Your task to perform on an android device: Empty the shopping cart on walmart.com. Add "dell xps" to the cart on walmart.com Image 0: 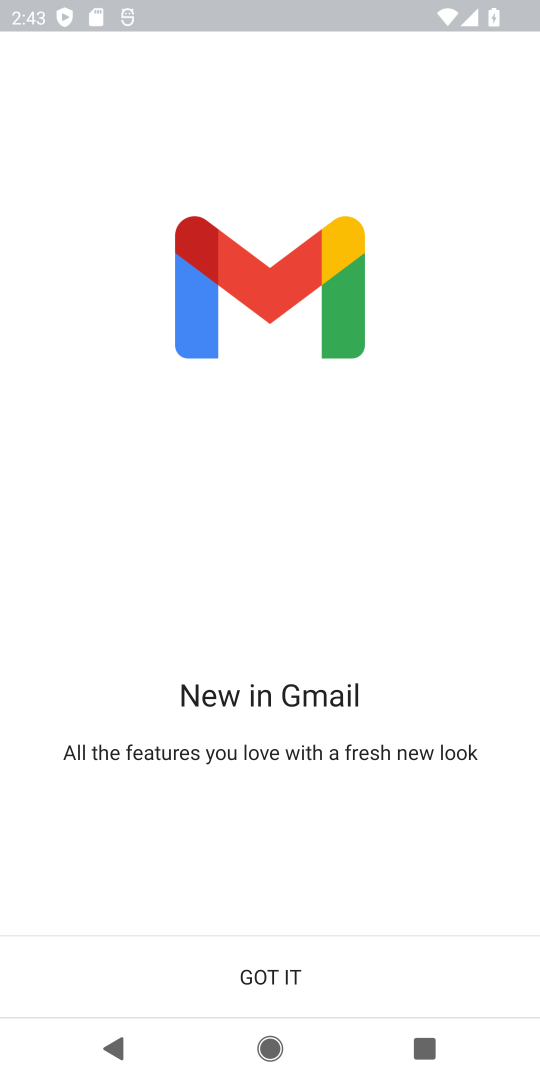
Step 0: press home button
Your task to perform on an android device: Empty the shopping cart on walmart.com. Add "dell xps" to the cart on walmart.com Image 1: 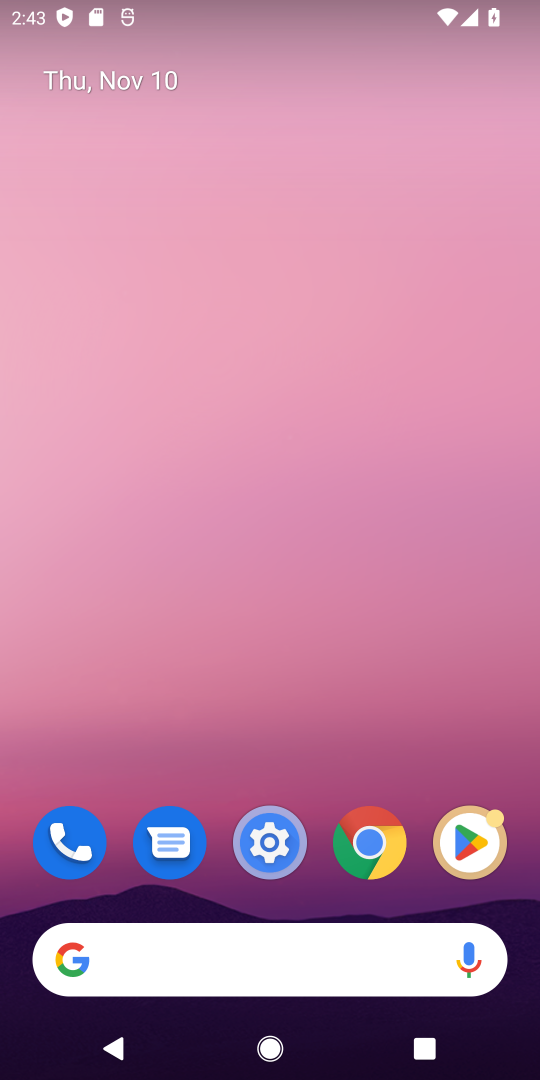
Step 1: click (116, 966)
Your task to perform on an android device: Empty the shopping cart on walmart.com. Add "dell xps" to the cart on walmart.com Image 2: 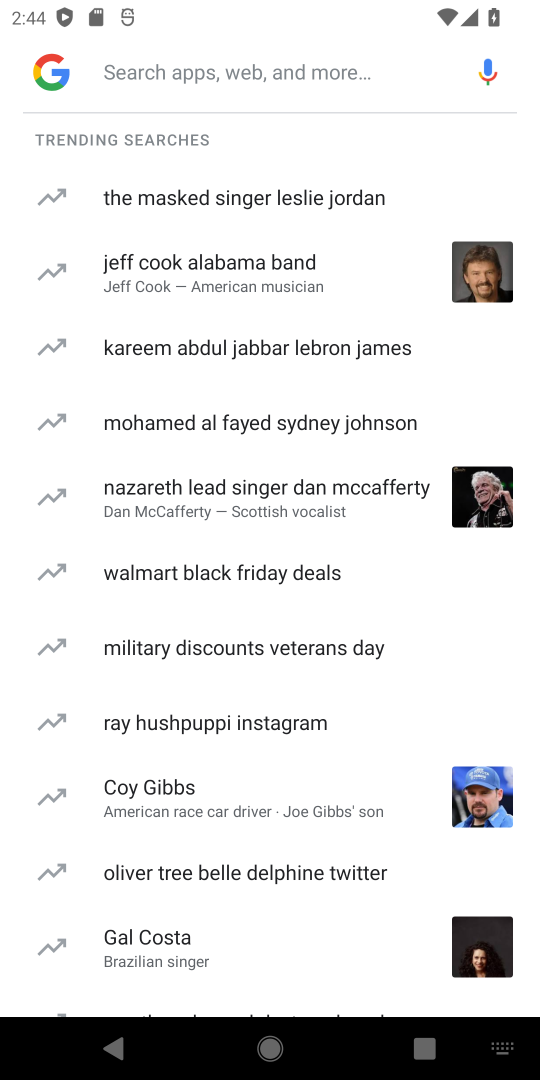
Step 2: type "walmart.com"
Your task to perform on an android device: Empty the shopping cart on walmart.com. Add "dell xps" to the cart on walmart.com Image 3: 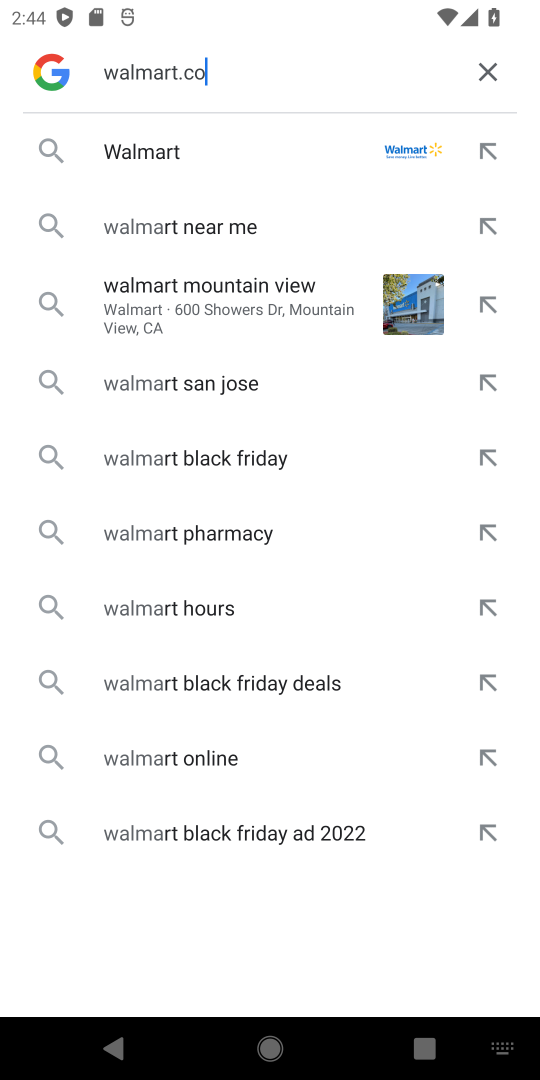
Step 3: press enter
Your task to perform on an android device: Empty the shopping cart on walmart.com. Add "dell xps" to the cart on walmart.com Image 4: 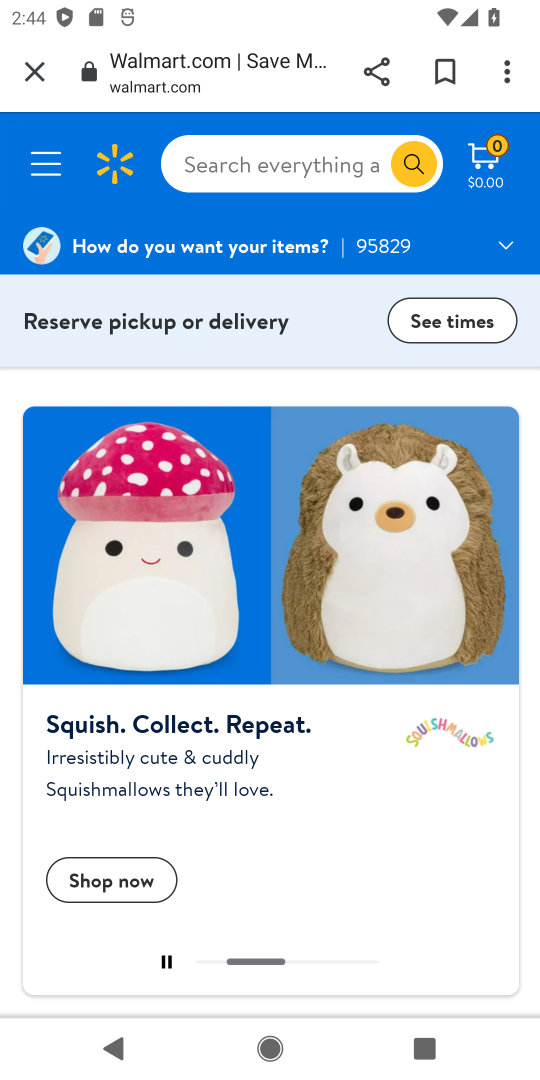
Step 4: click (487, 153)
Your task to perform on an android device: Empty the shopping cart on walmart.com. Add "dell xps" to the cart on walmart.com Image 5: 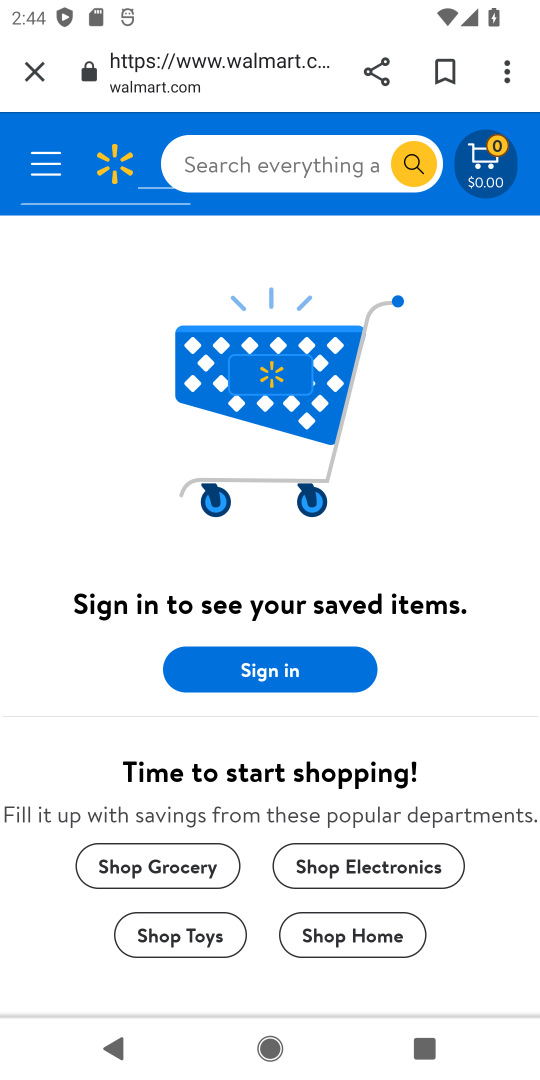
Step 5: click (224, 165)
Your task to perform on an android device: Empty the shopping cart on walmart.com. Add "dell xps" to the cart on walmart.com Image 6: 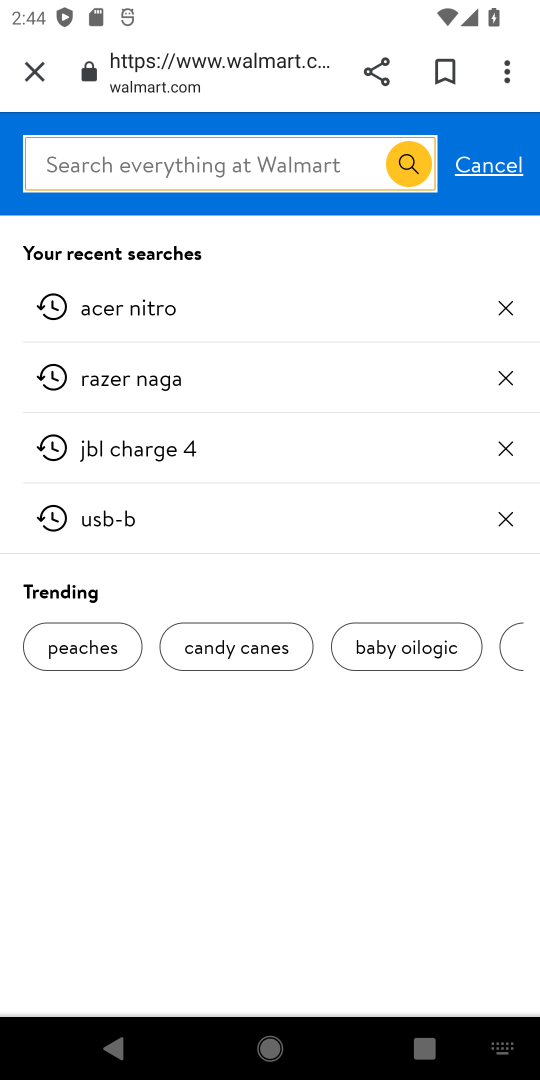
Step 6: type "dell xps"
Your task to perform on an android device: Empty the shopping cart on walmart.com. Add "dell xps" to the cart on walmart.com Image 7: 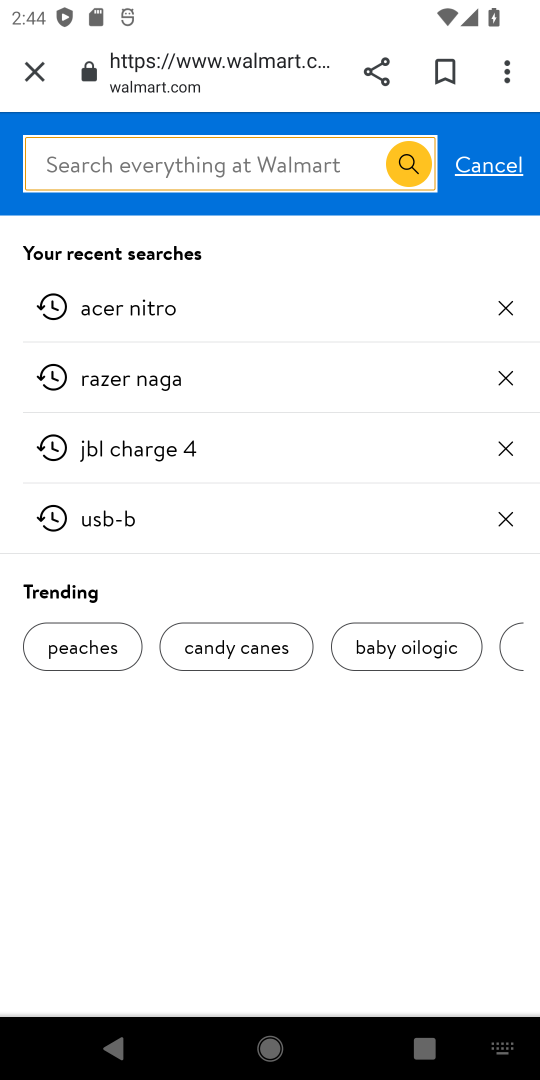
Step 7: press enter
Your task to perform on an android device: Empty the shopping cart on walmart.com. Add "dell xps" to the cart on walmart.com Image 8: 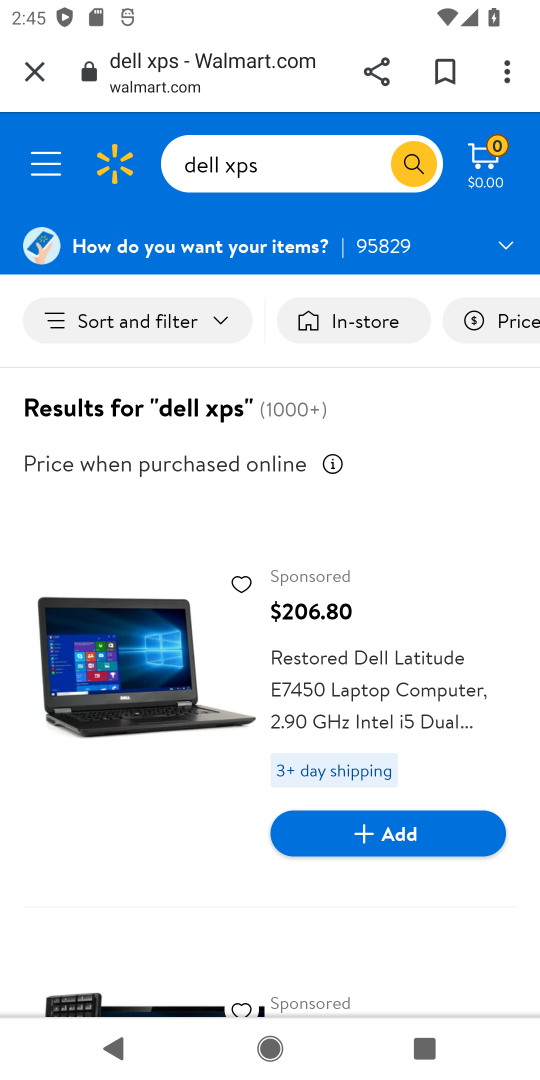
Step 8: drag from (200, 840) to (212, 501)
Your task to perform on an android device: Empty the shopping cart on walmart.com. Add "dell xps" to the cart on walmart.com Image 9: 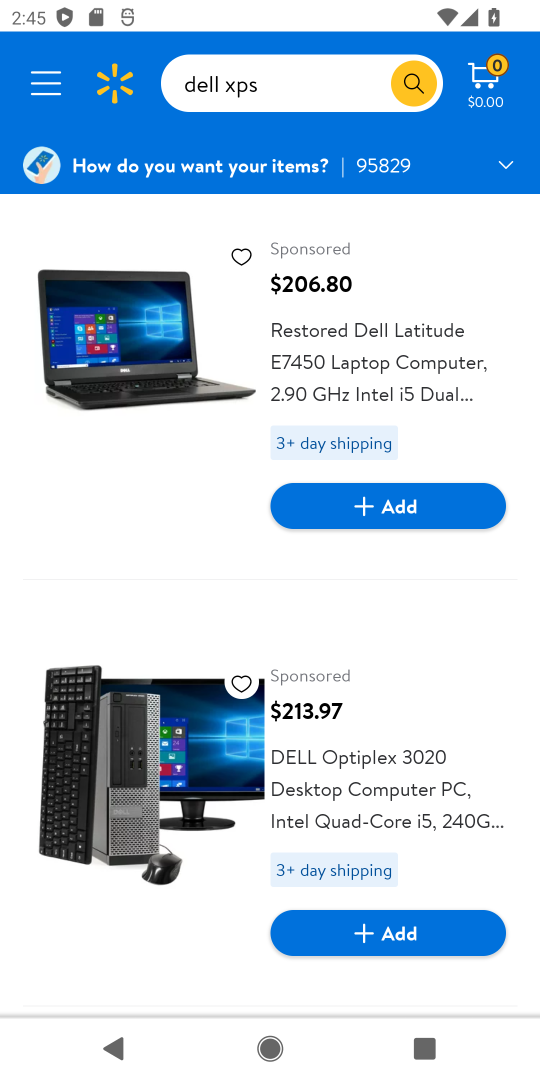
Step 9: drag from (178, 879) to (237, 341)
Your task to perform on an android device: Empty the shopping cart on walmart.com. Add "dell xps" to the cart on walmart.com Image 10: 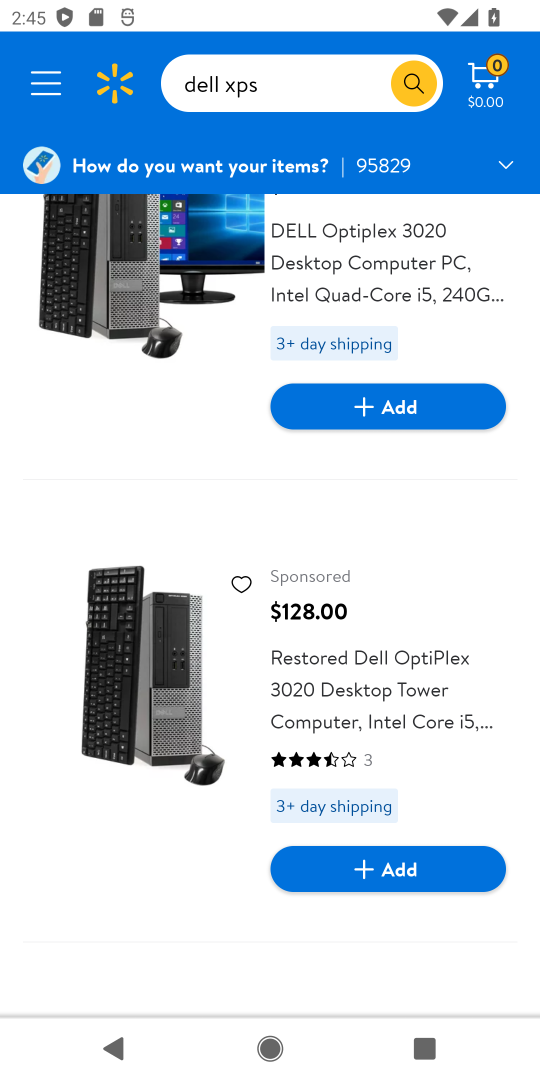
Step 10: drag from (198, 869) to (246, 433)
Your task to perform on an android device: Empty the shopping cart on walmart.com. Add "dell xps" to the cart on walmart.com Image 11: 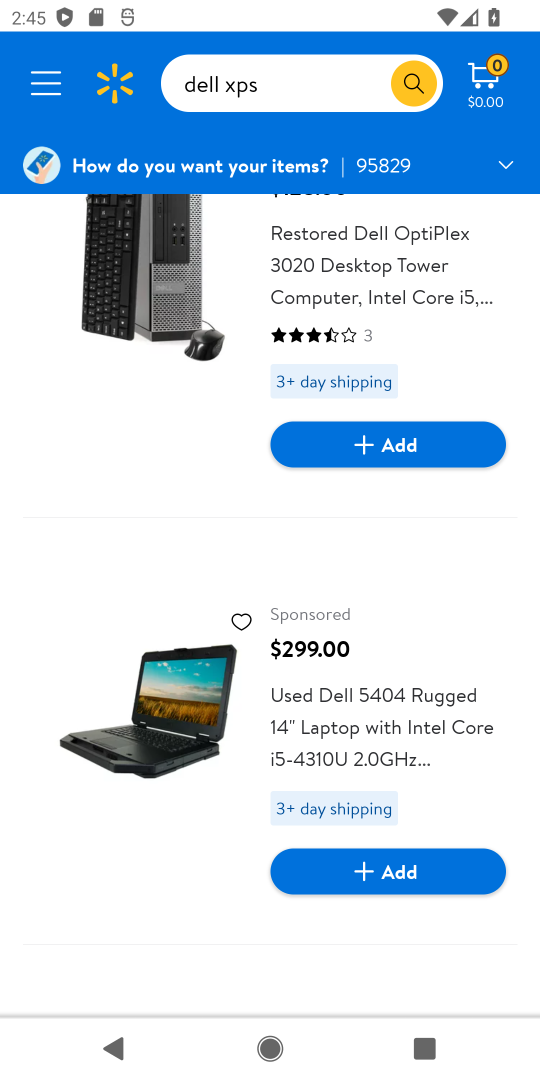
Step 11: drag from (199, 863) to (210, 326)
Your task to perform on an android device: Empty the shopping cart on walmart.com. Add "dell xps" to the cart on walmart.com Image 12: 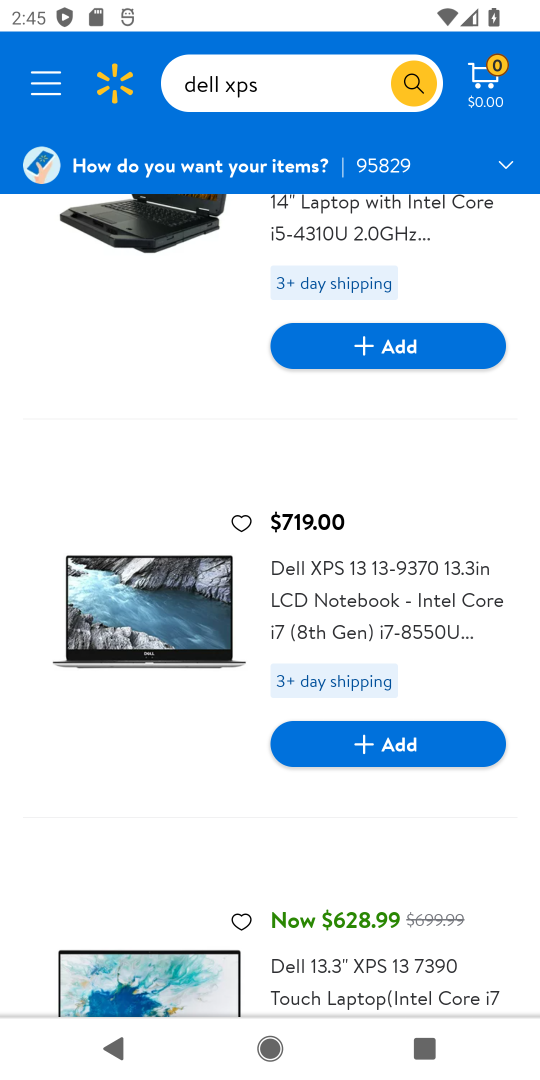
Step 12: click (415, 749)
Your task to perform on an android device: Empty the shopping cart on walmart.com. Add "dell xps" to the cart on walmart.com Image 13: 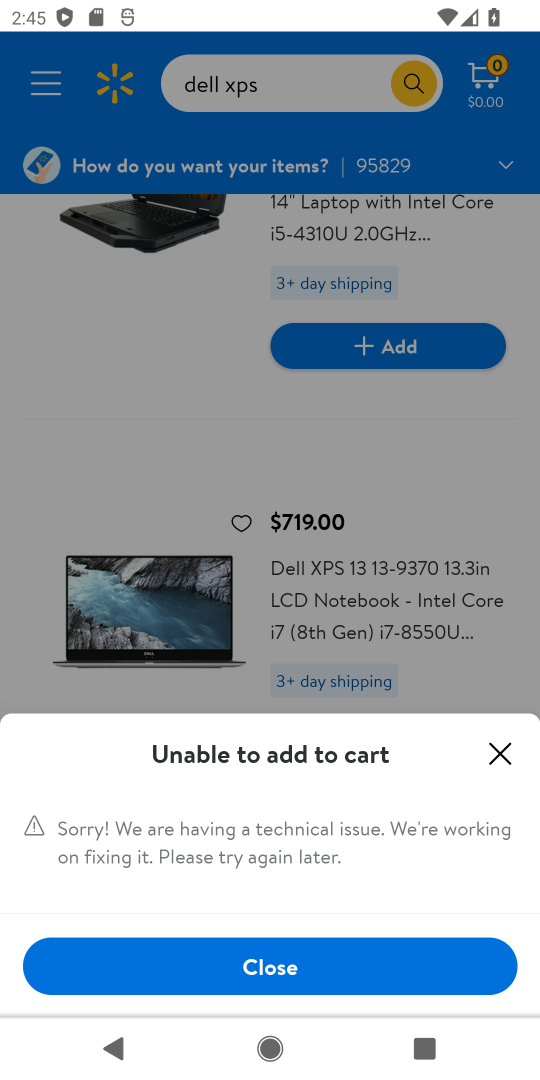
Step 13: task complete